Your task to perform on an android device: change the upload size in google photos Image 0: 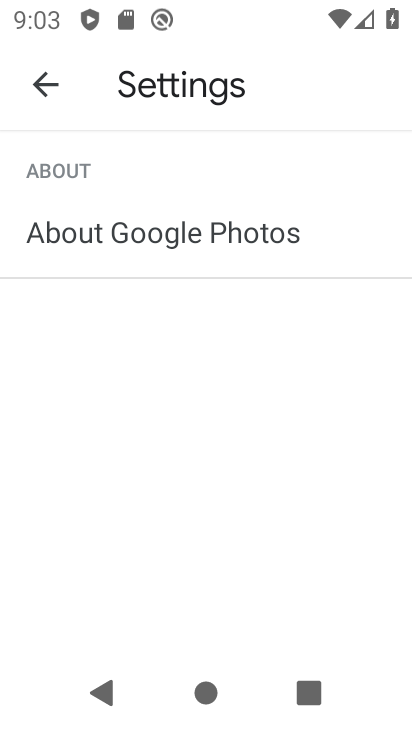
Step 0: press back button
Your task to perform on an android device: change the upload size in google photos Image 1: 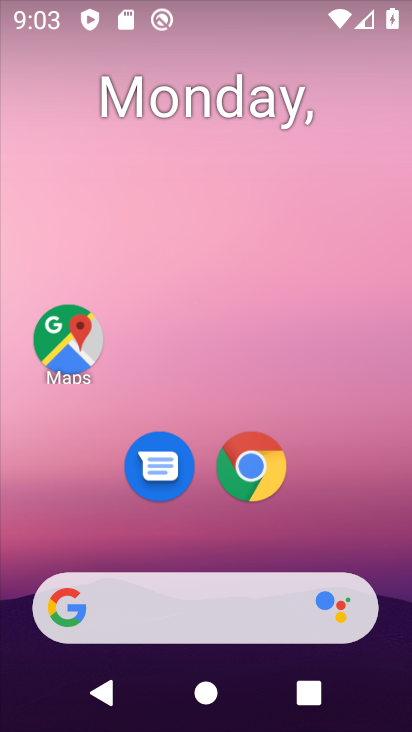
Step 1: drag from (331, 500) to (180, 3)
Your task to perform on an android device: change the upload size in google photos Image 2: 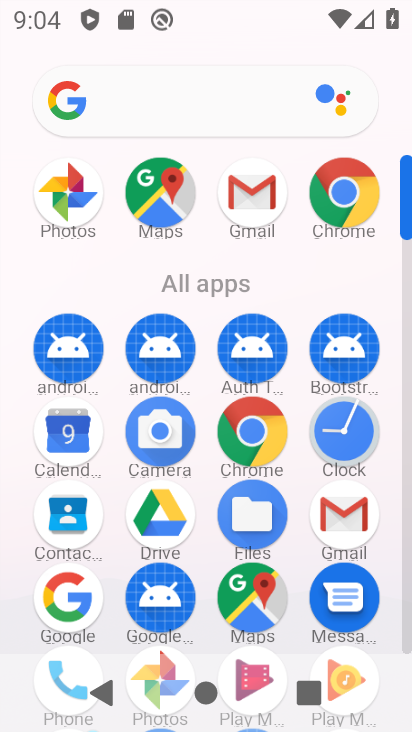
Step 2: click (73, 191)
Your task to perform on an android device: change the upload size in google photos Image 3: 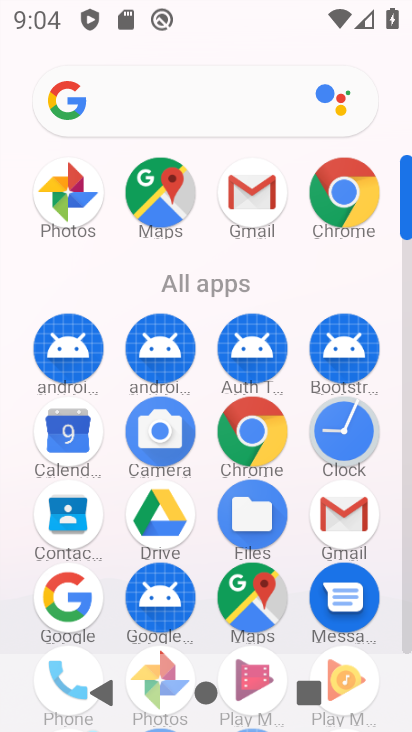
Step 3: click (77, 181)
Your task to perform on an android device: change the upload size in google photos Image 4: 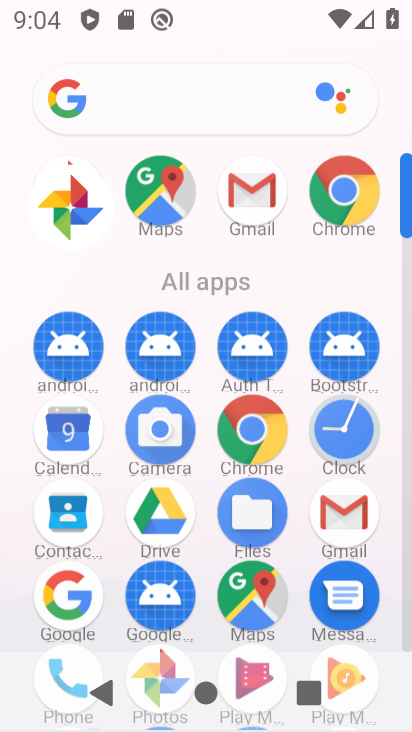
Step 4: click (79, 181)
Your task to perform on an android device: change the upload size in google photos Image 5: 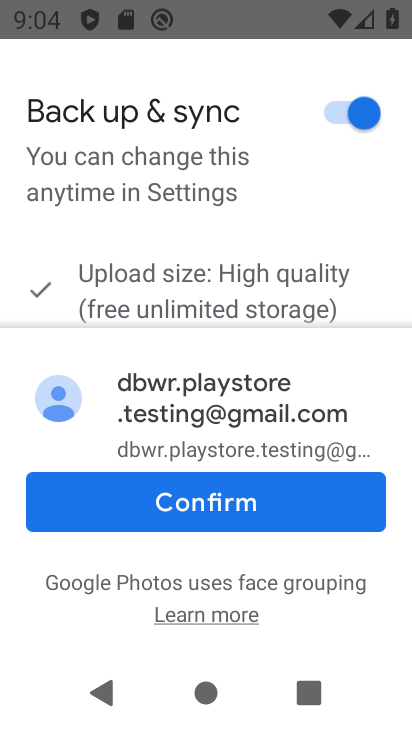
Step 5: click (72, 95)
Your task to perform on an android device: change the upload size in google photos Image 6: 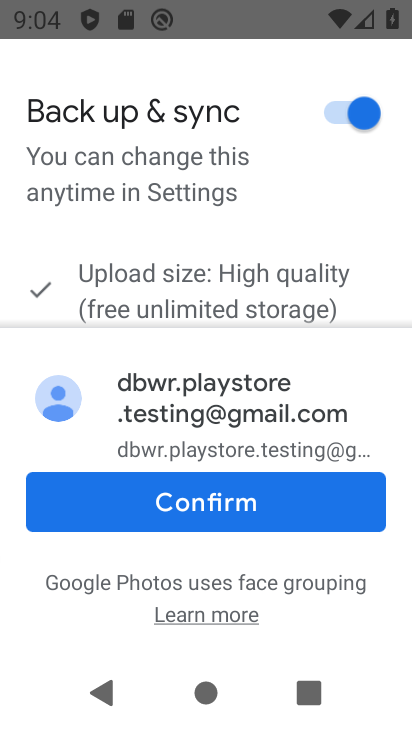
Step 6: click (207, 496)
Your task to perform on an android device: change the upload size in google photos Image 7: 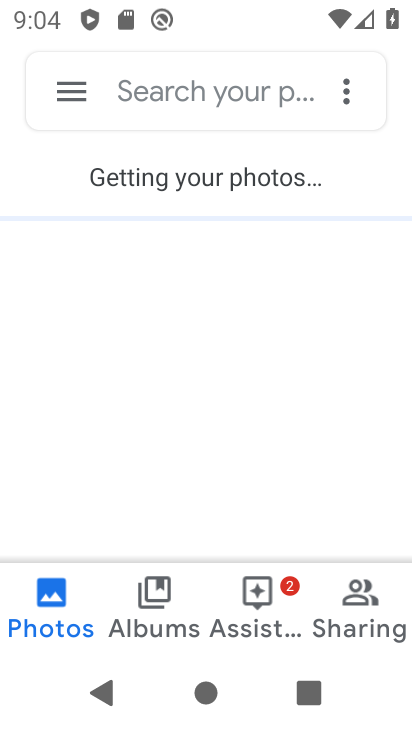
Step 7: click (66, 94)
Your task to perform on an android device: change the upload size in google photos Image 8: 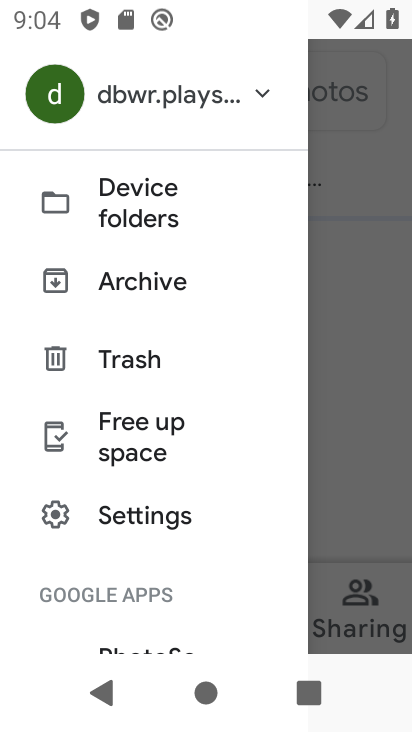
Step 8: drag from (227, 412) to (211, 90)
Your task to perform on an android device: change the upload size in google photos Image 9: 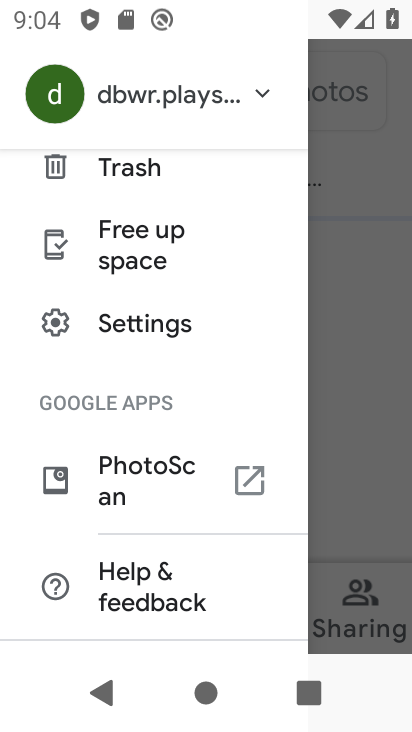
Step 9: drag from (281, 416) to (211, 165)
Your task to perform on an android device: change the upload size in google photos Image 10: 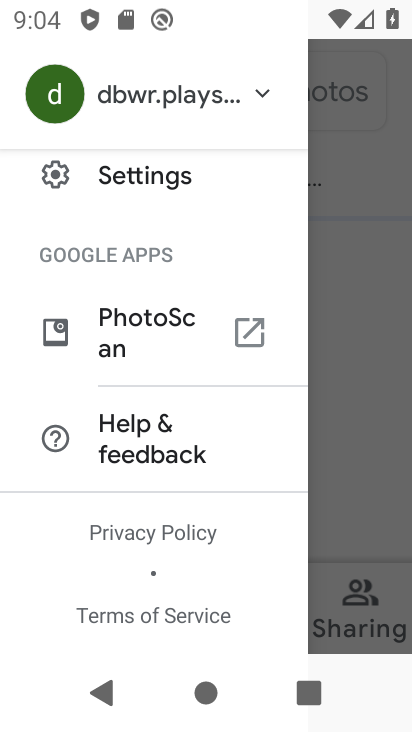
Step 10: click (138, 180)
Your task to perform on an android device: change the upload size in google photos Image 11: 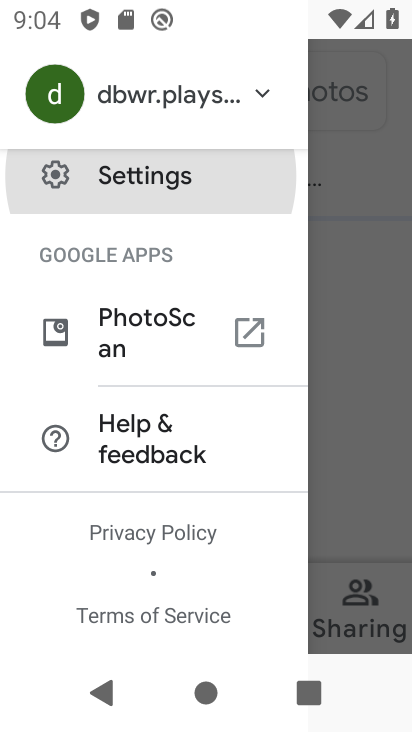
Step 11: click (138, 180)
Your task to perform on an android device: change the upload size in google photos Image 12: 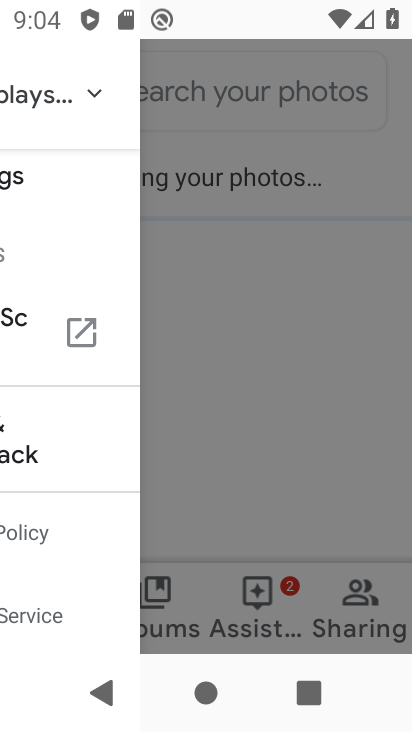
Step 12: click (138, 180)
Your task to perform on an android device: change the upload size in google photos Image 13: 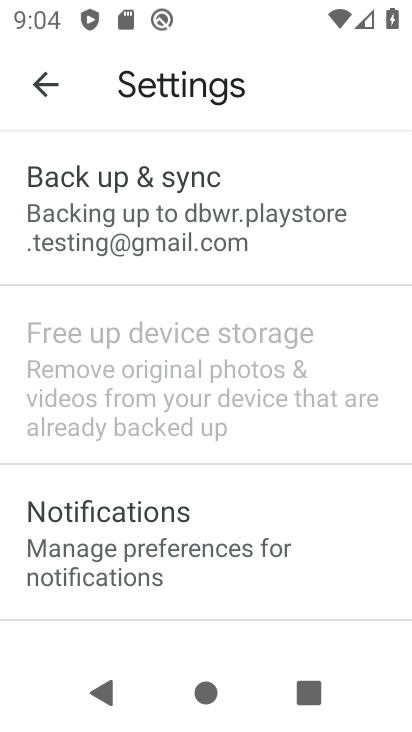
Step 13: click (108, 208)
Your task to perform on an android device: change the upload size in google photos Image 14: 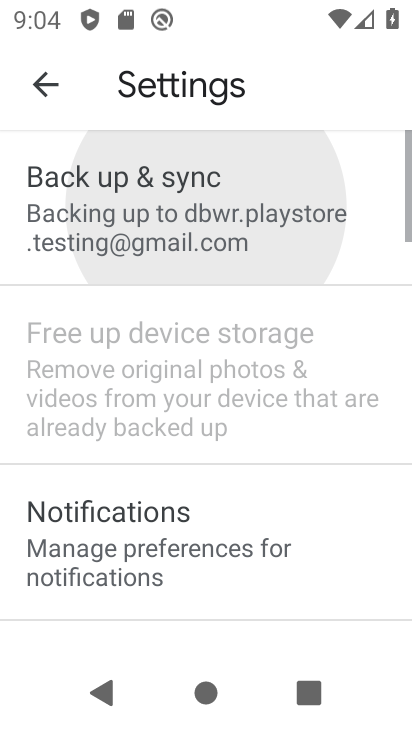
Step 14: click (115, 197)
Your task to perform on an android device: change the upload size in google photos Image 15: 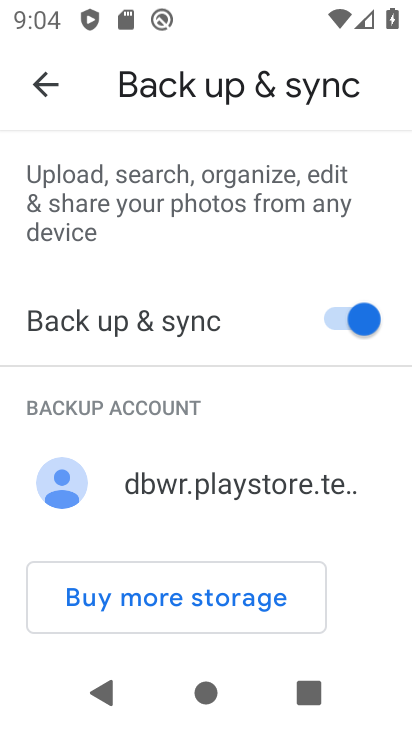
Step 15: drag from (145, 543) to (62, 204)
Your task to perform on an android device: change the upload size in google photos Image 16: 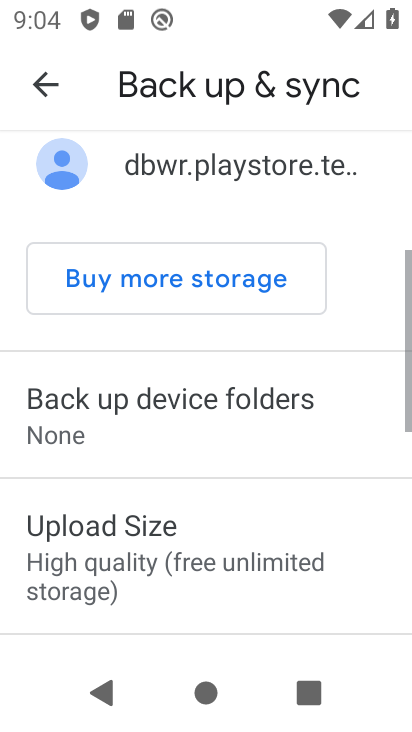
Step 16: drag from (202, 441) to (167, 200)
Your task to perform on an android device: change the upload size in google photos Image 17: 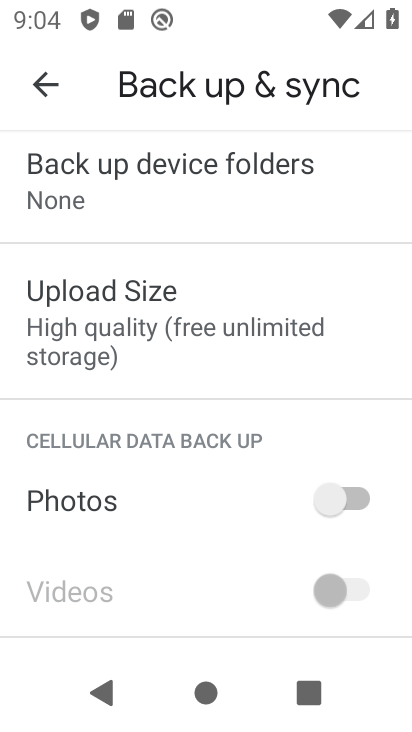
Step 17: click (94, 332)
Your task to perform on an android device: change the upload size in google photos Image 18: 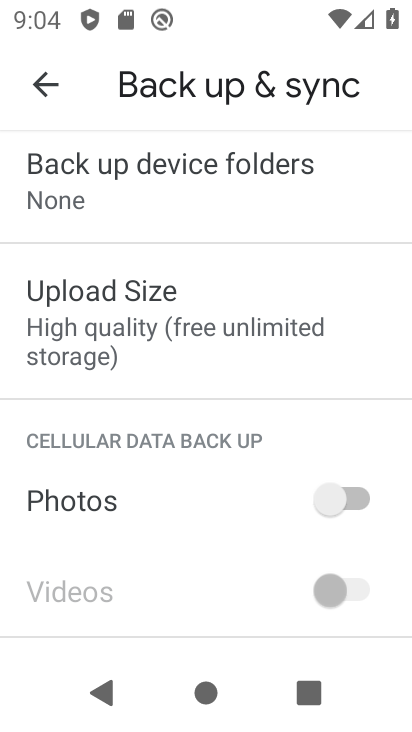
Step 18: click (94, 332)
Your task to perform on an android device: change the upload size in google photos Image 19: 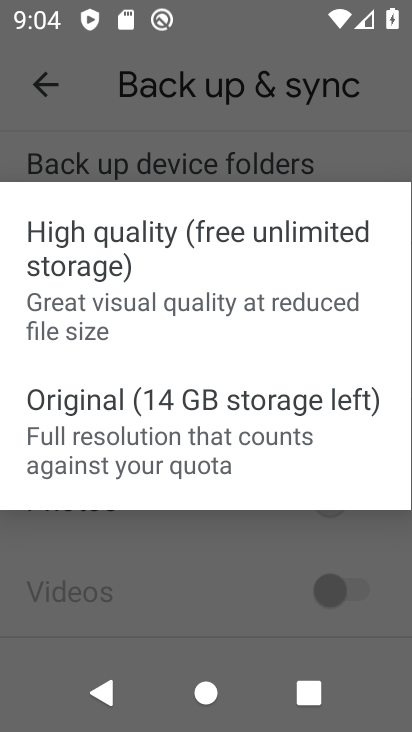
Step 19: click (74, 322)
Your task to perform on an android device: change the upload size in google photos Image 20: 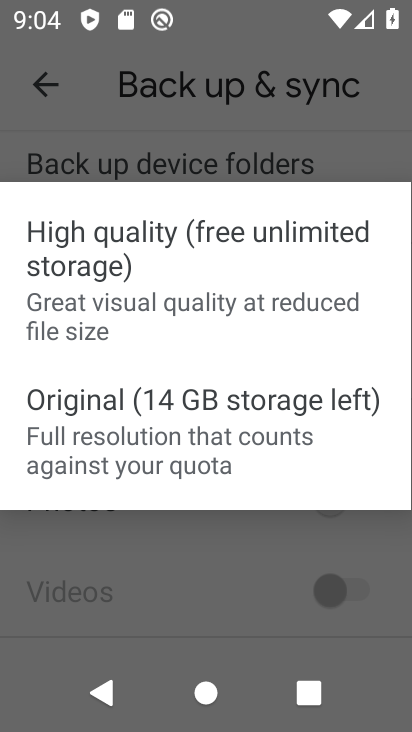
Step 20: click (74, 322)
Your task to perform on an android device: change the upload size in google photos Image 21: 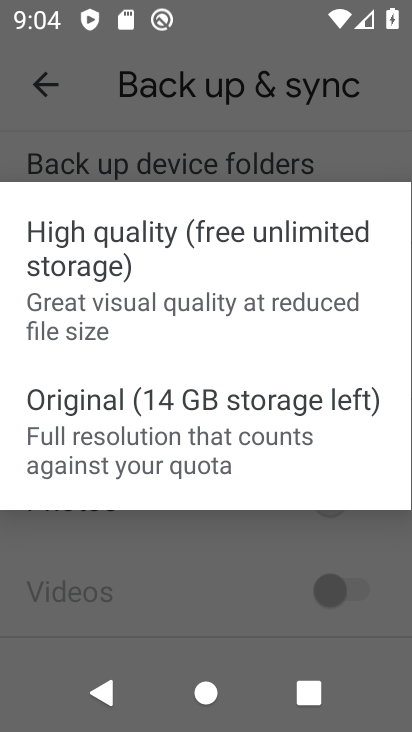
Step 21: click (84, 269)
Your task to perform on an android device: change the upload size in google photos Image 22: 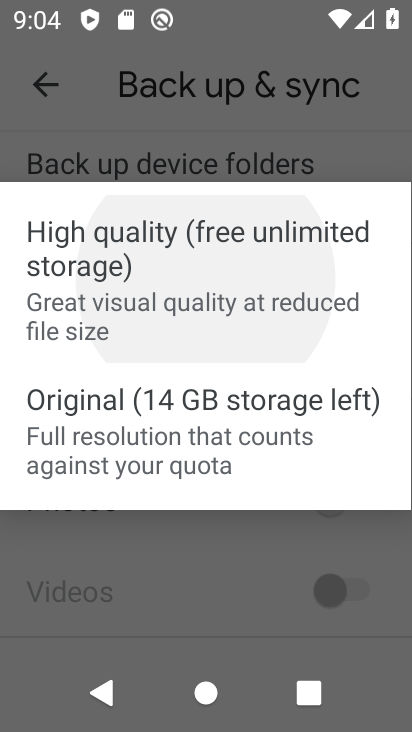
Step 22: click (85, 270)
Your task to perform on an android device: change the upload size in google photos Image 23: 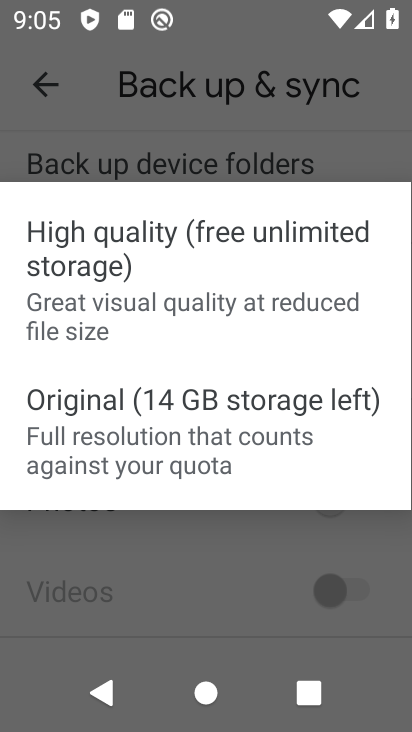
Step 23: click (86, 429)
Your task to perform on an android device: change the upload size in google photos Image 24: 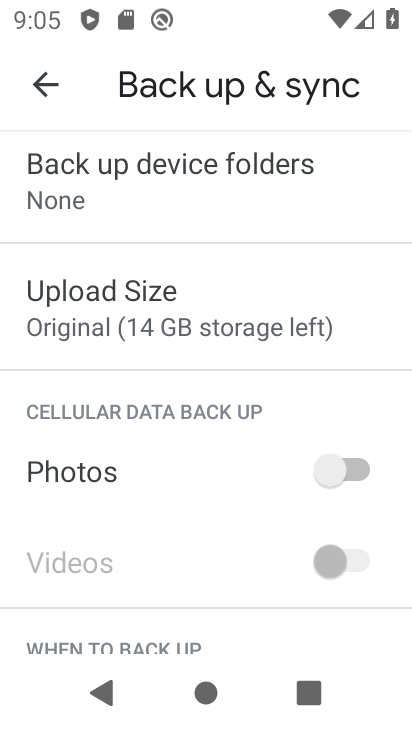
Step 24: task complete